Your task to perform on an android device: Open calendar and show me the first week of next month Image 0: 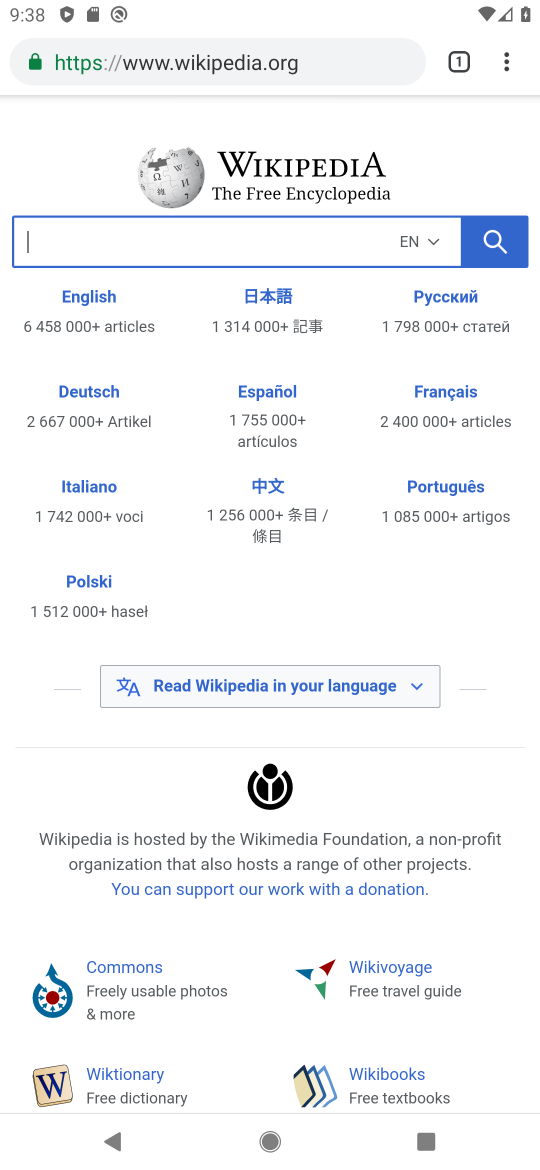
Step 0: press home button
Your task to perform on an android device: Open calendar and show me the first week of next month Image 1: 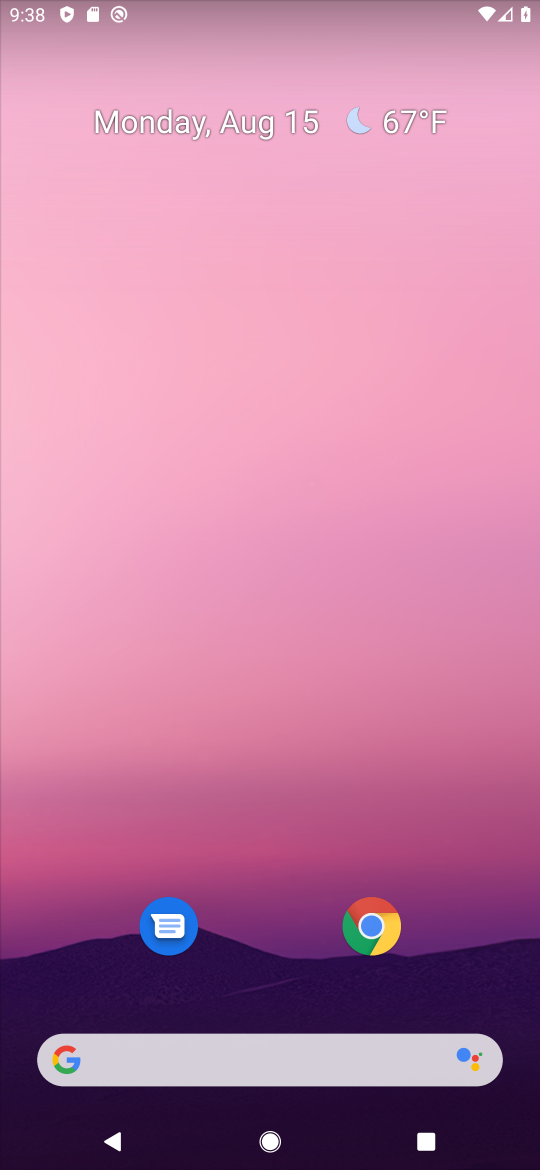
Step 1: drag from (288, 799) to (253, 25)
Your task to perform on an android device: Open calendar and show me the first week of next month Image 2: 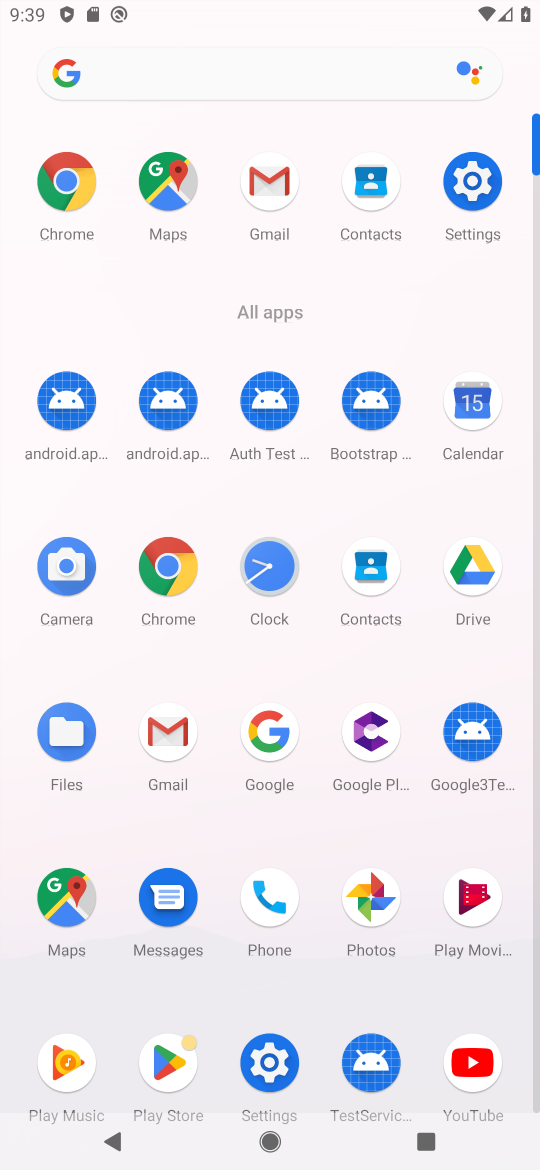
Step 2: click (490, 413)
Your task to perform on an android device: Open calendar and show me the first week of next month Image 3: 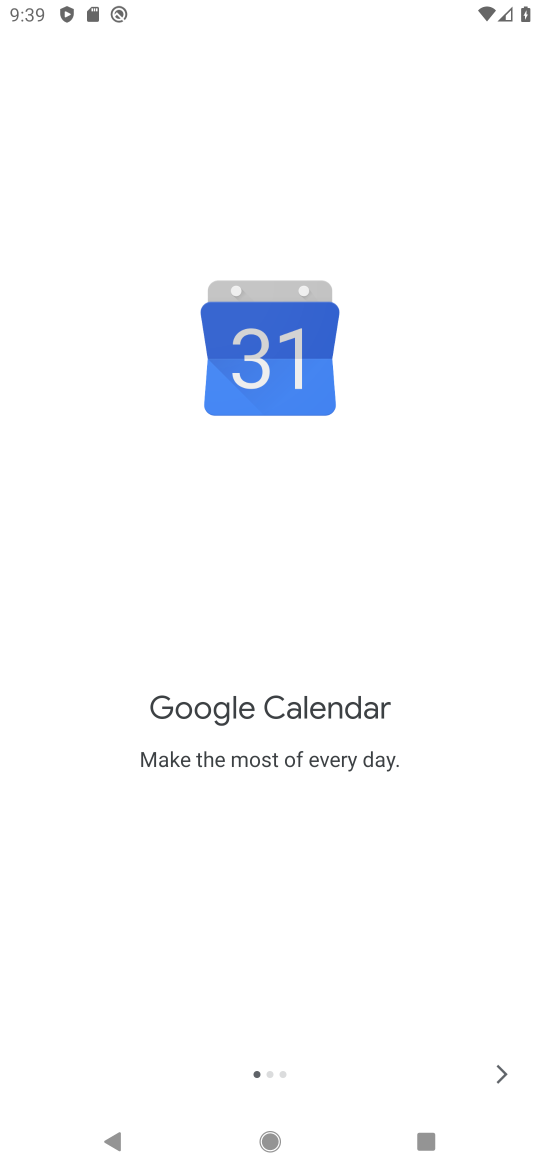
Step 3: click (504, 1060)
Your task to perform on an android device: Open calendar and show me the first week of next month Image 4: 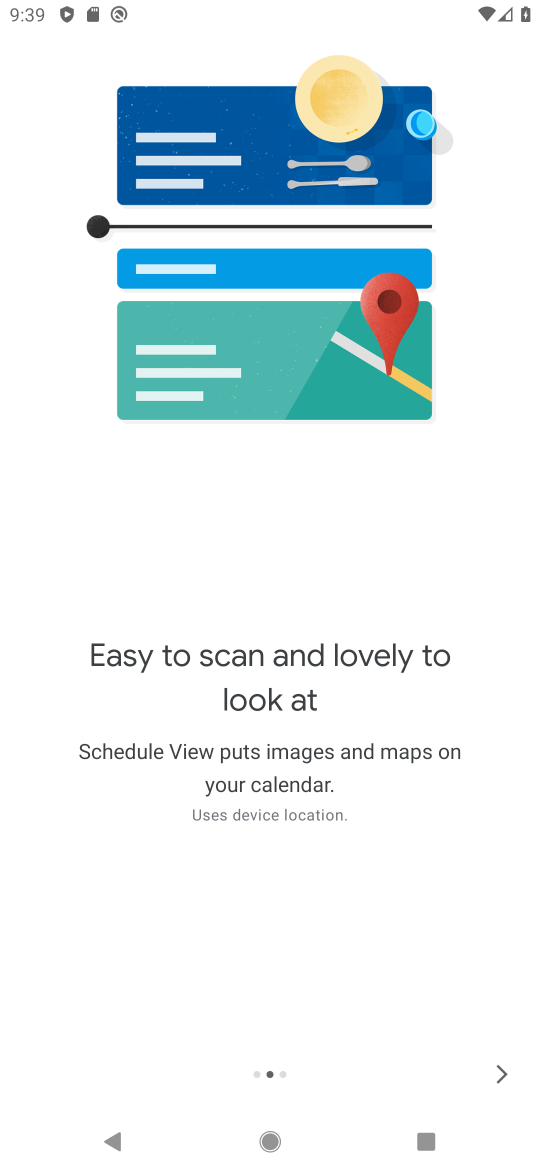
Step 4: click (504, 1060)
Your task to perform on an android device: Open calendar and show me the first week of next month Image 5: 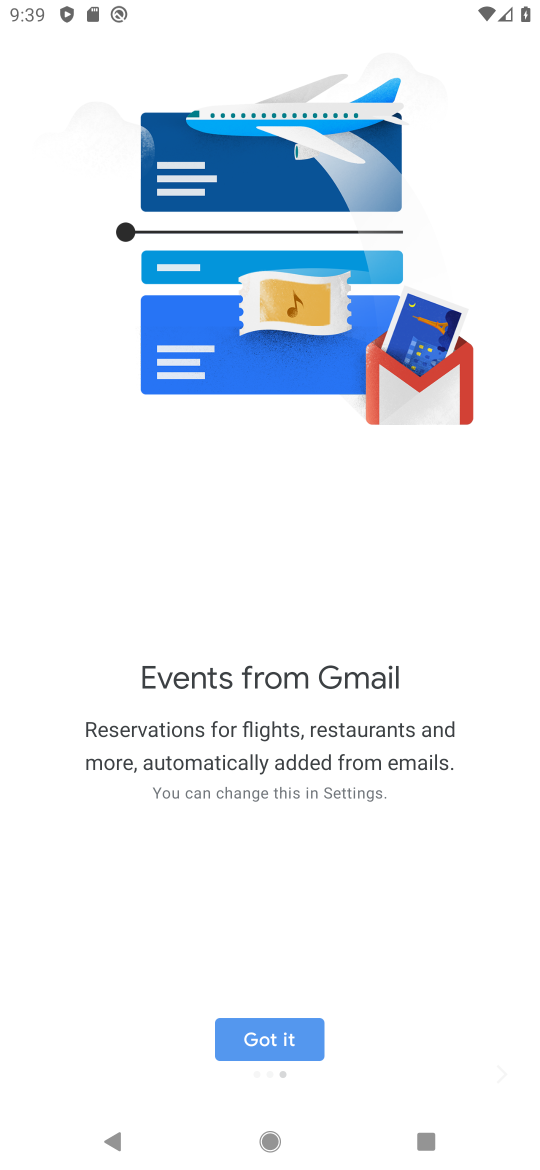
Step 5: click (504, 1060)
Your task to perform on an android device: Open calendar and show me the first week of next month Image 6: 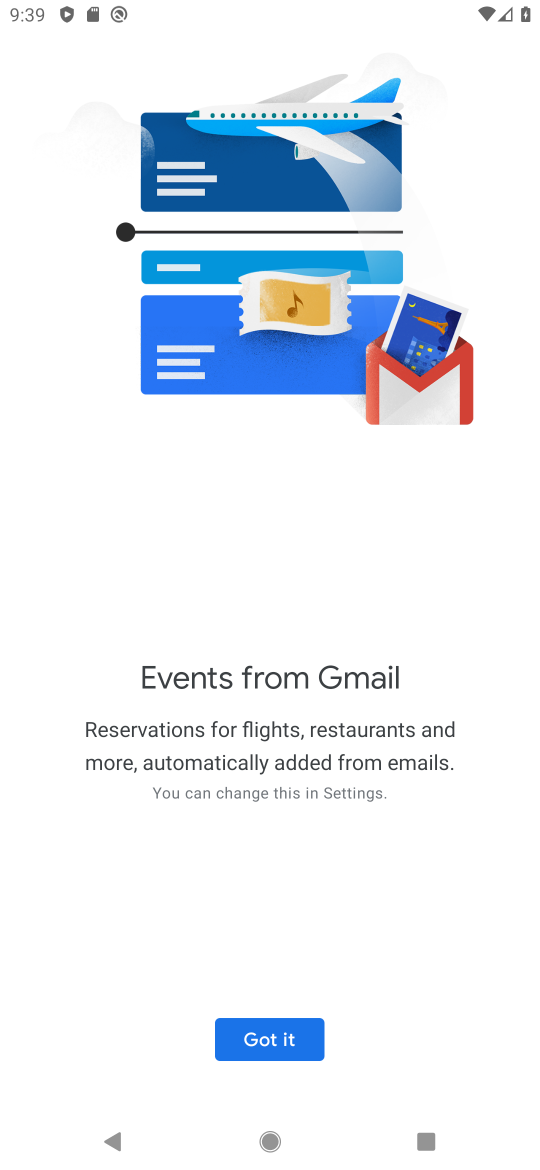
Step 6: click (504, 1060)
Your task to perform on an android device: Open calendar and show me the first week of next month Image 7: 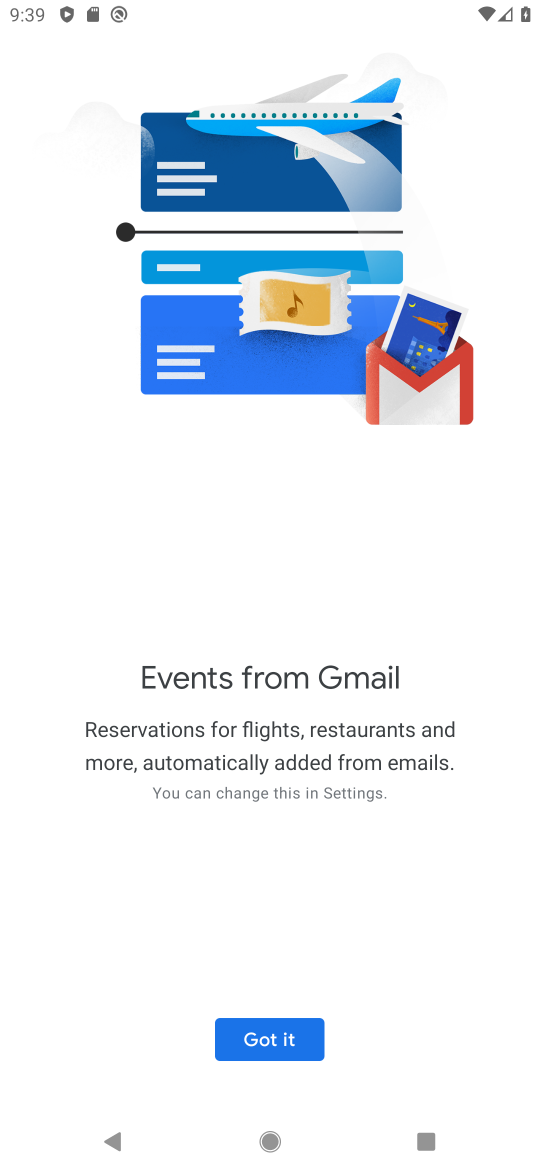
Step 7: click (259, 1049)
Your task to perform on an android device: Open calendar and show me the first week of next month Image 8: 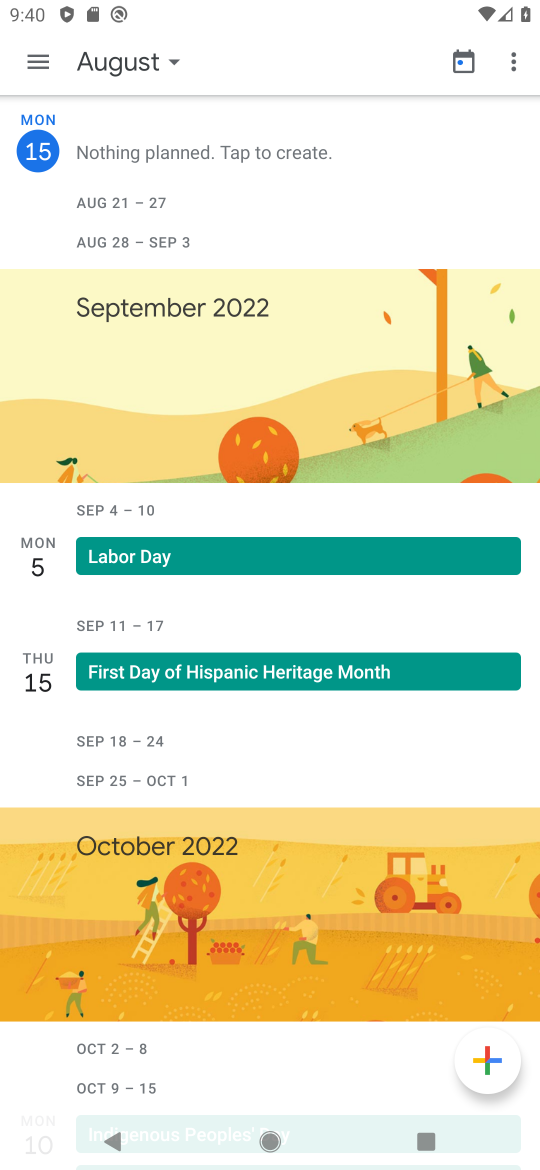
Step 8: click (176, 64)
Your task to perform on an android device: Open calendar and show me the first week of next month Image 9: 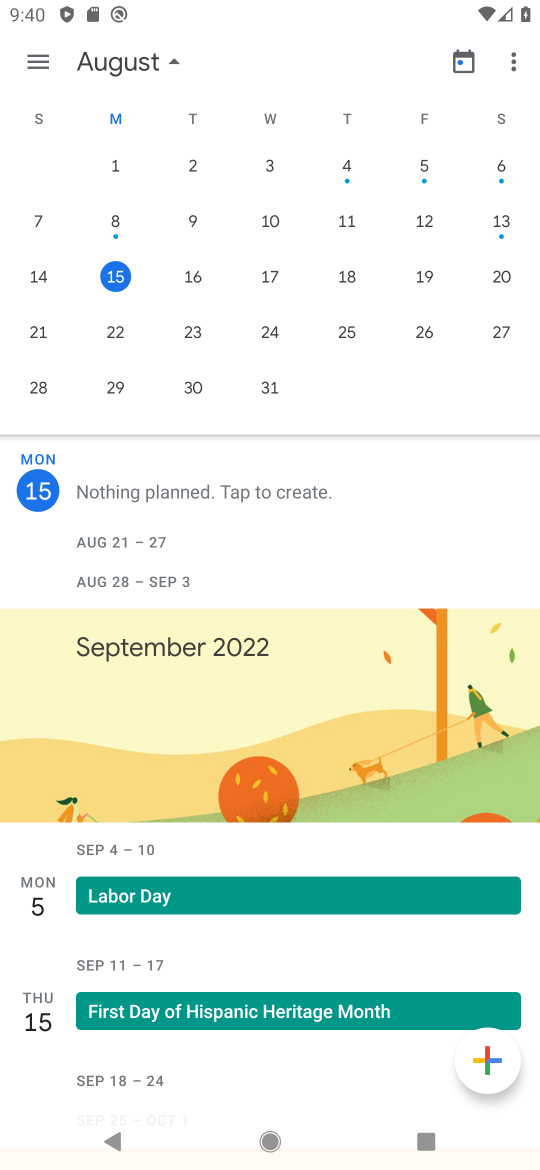
Step 9: task complete